Your task to perform on an android device: change text size in settings app Image 0: 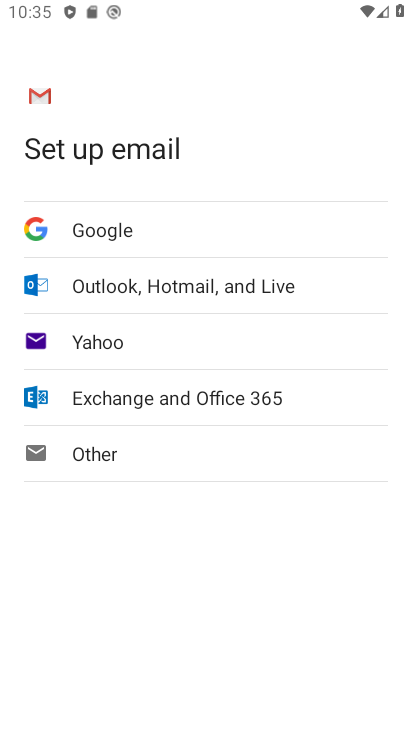
Step 0: press home button
Your task to perform on an android device: change text size in settings app Image 1: 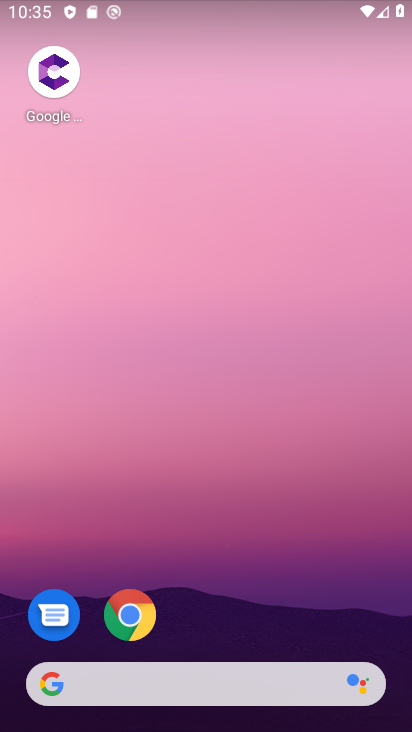
Step 1: drag from (332, 627) to (134, 12)
Your task to perform on an android device: change text size in settings app Image 2: 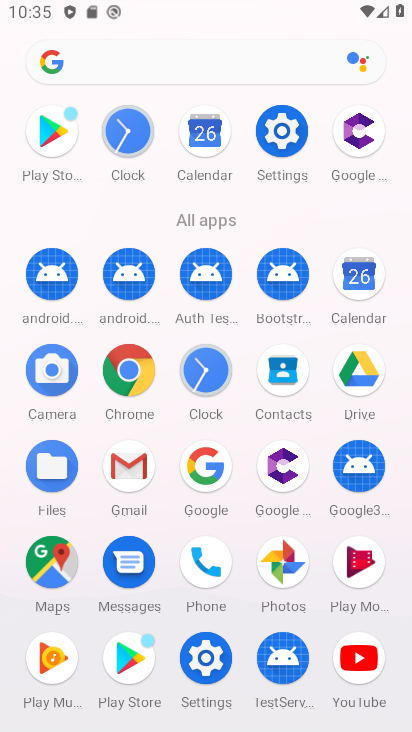
Step 2: click (293, 141)
Your task to perform on an android device: change text size in settings app Image 3: 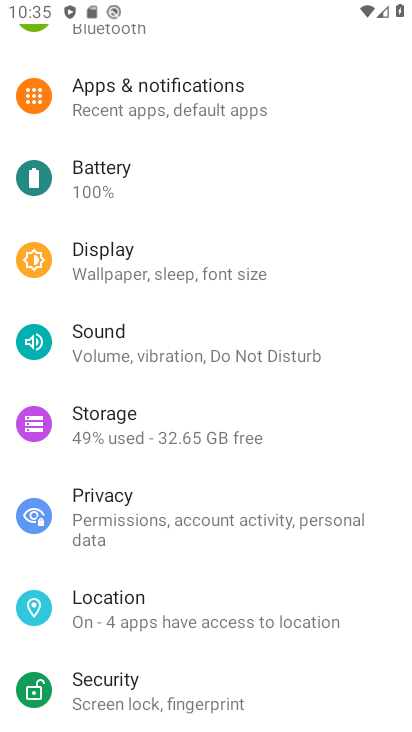
Step 3: click (197, 262)
Your task to perform on an android device: change text size in settings app Image 4: 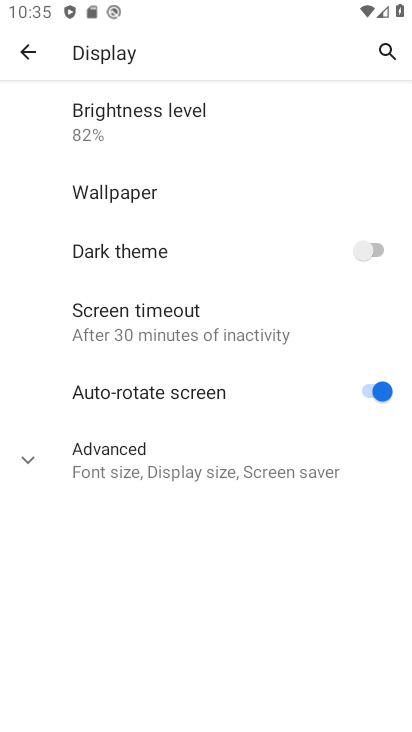
Step 4: click (201, 466)
Your task to perform on an android device: change text size in settings app Image 5: 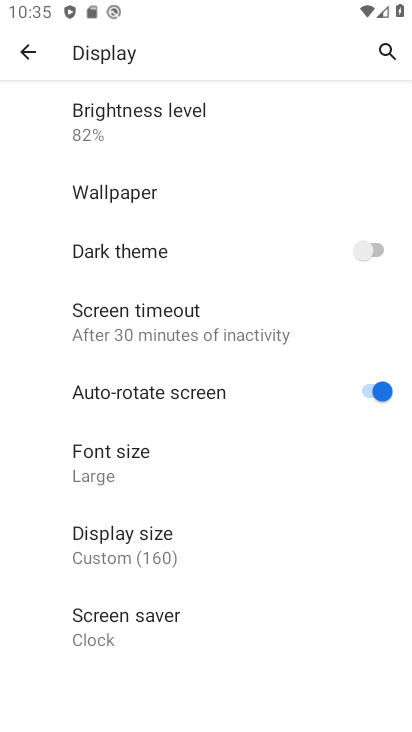
Step 5: click (160, 466)
Your task to perform on an android device: change text size in settings app Image 6: 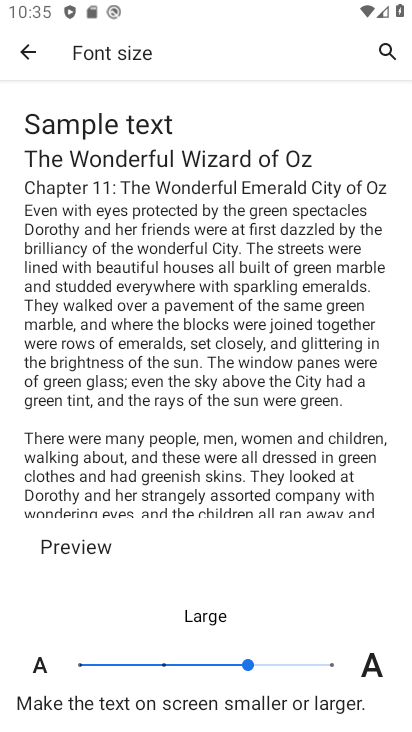
Step 6: task complete